Your task to perform on an android device: add a contact Image 0: 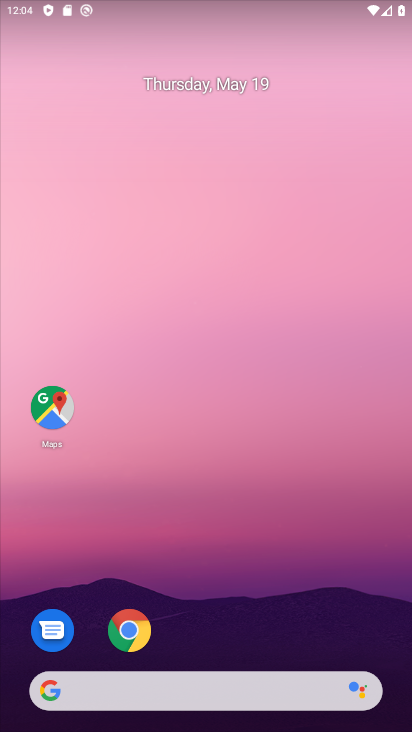
Step 0: drag from (195, 555) to (343, 155)
Your task to perform on an android device: add a contact Image 1: 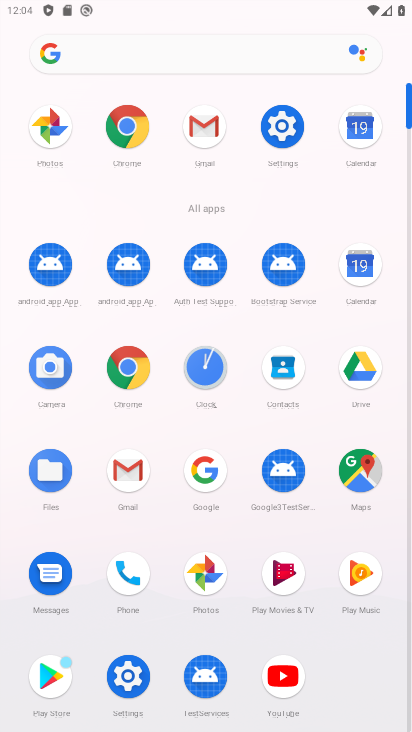
Step 1: click (294, 377)
Your task to perform on an android device: add a contact Image 2: 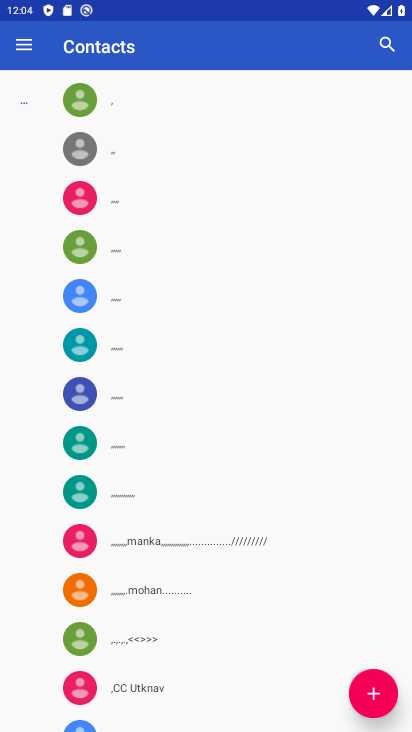
Step 2: click (383, 695)
Your task to perform on an android device: add a contact Image 3: 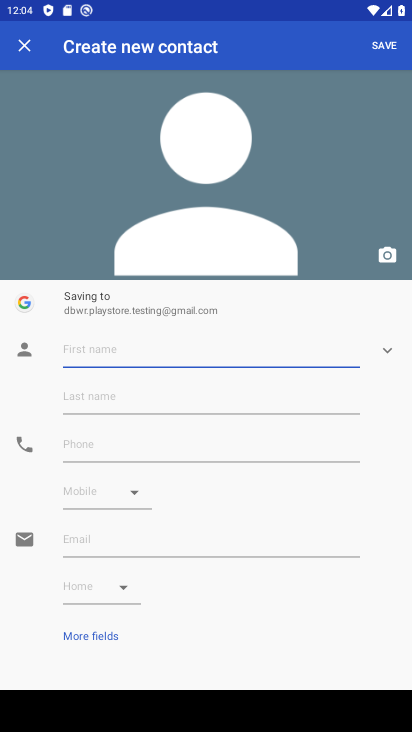
Step 3: type "ffg"
Your task to perform on an android device: add a contact Image 4: 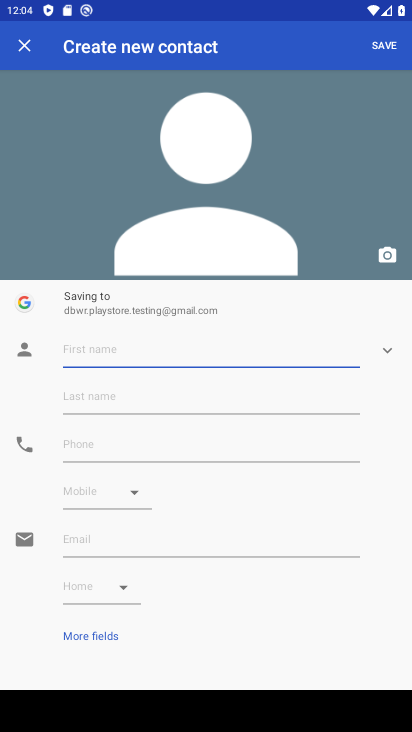
Step 4: click (171, 413)
Your task to perform on an android device: add a contact Image 5: 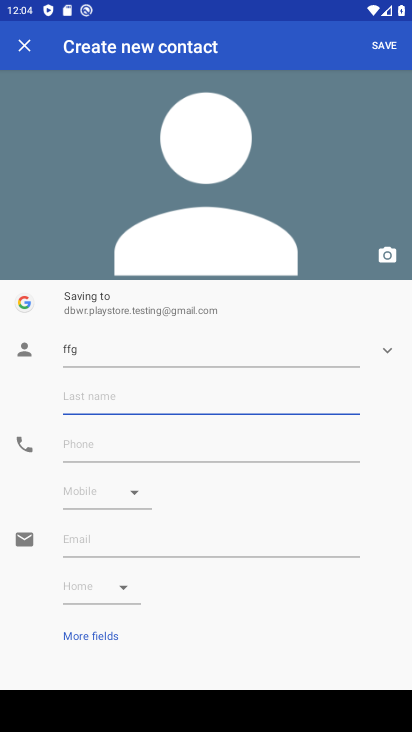
Step 5: type "fggh"
Your task to perform on an android device: add a contact Image 6: 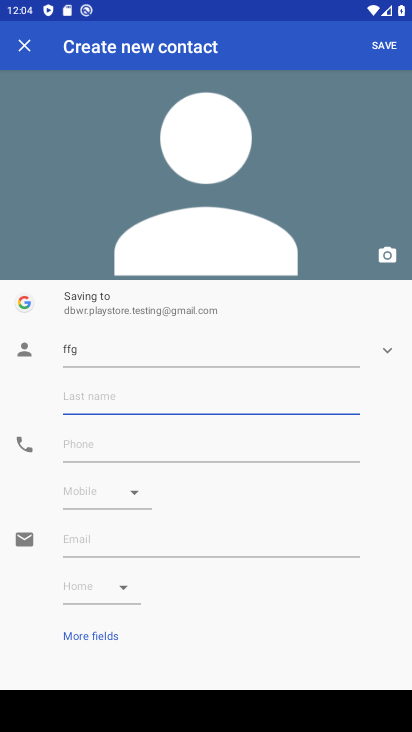
Step 6: click (117, 444)
Your task to perform on an android device: add a contact Image 7: 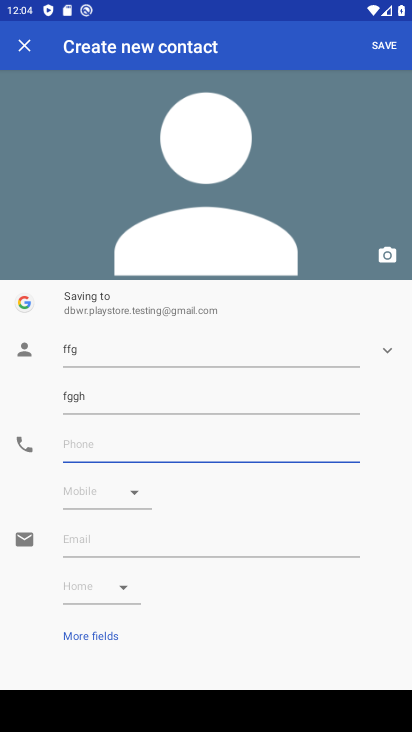
Step 7: type "567"
Your task to perform on an android device: add a contact Image 8: 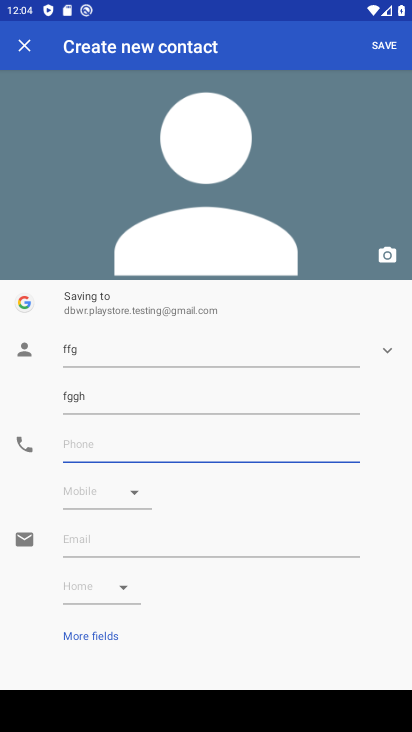
Step 8: click (108, 499)
Your task to perform on an android device: add a contact Image 9: 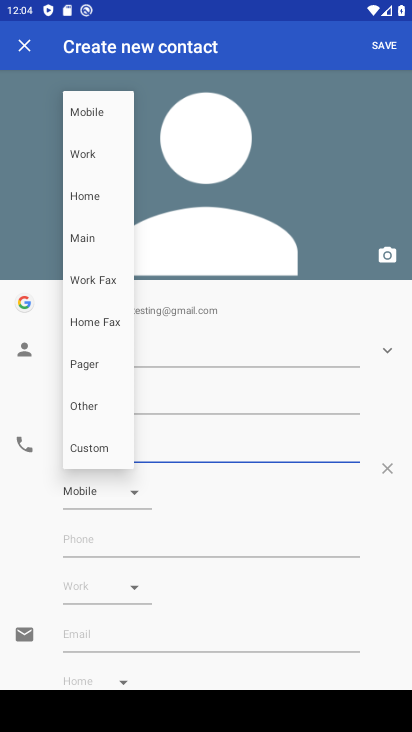
Step 9: click (390, 40)
Your task to perform on an android device: add a contact Image 10: 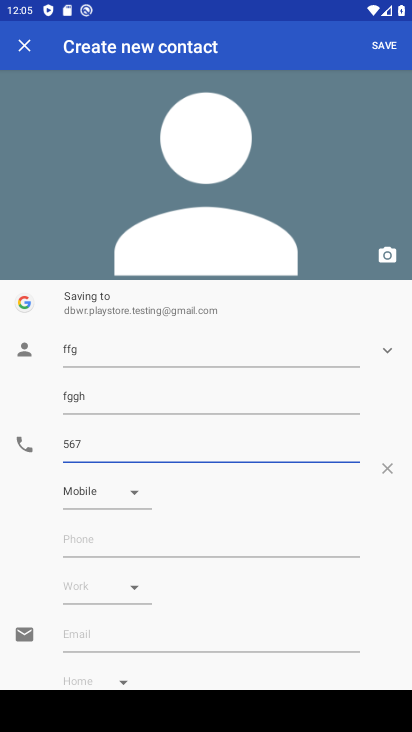
Step 10: click (384, 52)
Your task to perform on an android device: add a contact Image 11: 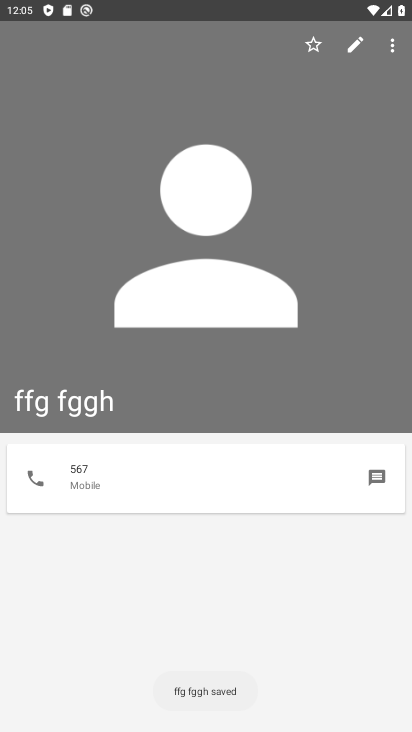
Step 11: task complete